Your task to perform on an android device: delete the emails in spam in the gmail app Image 0: 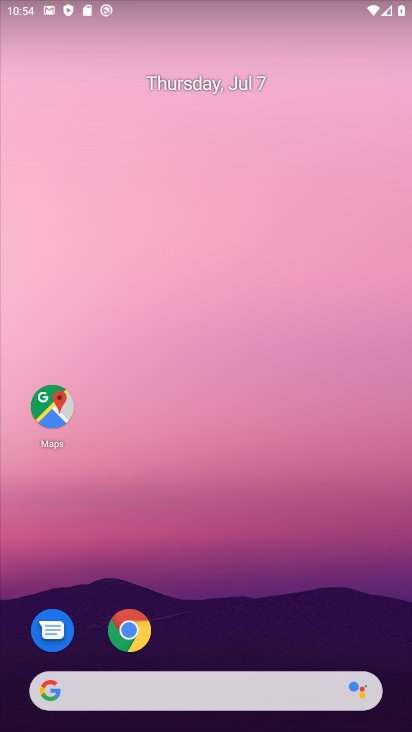
Step 0: drag from (271, 632) to (232, 71)
Your task to perform on an android device: delete the emails in spam in the gmail app Image 1: 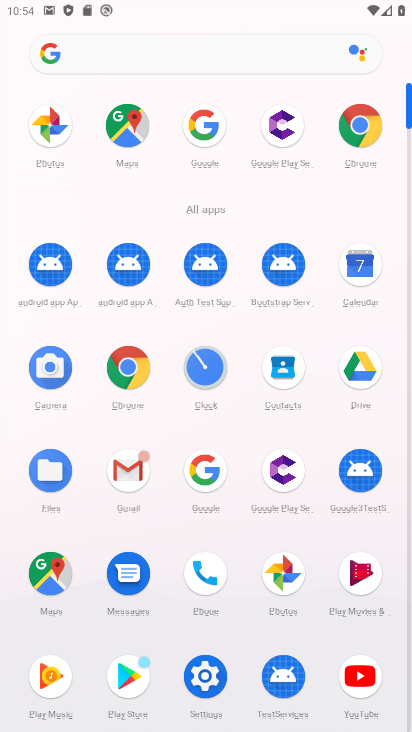
Step 1: click (122, 466)
Your task to perform on an android device: delete the emails in spam in the gmail app Image 2: 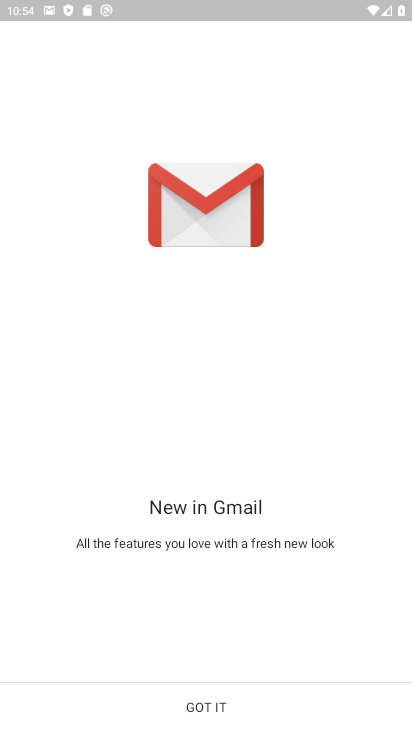
Step 2: click (279, 698)
Your task to perform on an android device: delete the emails in spam in the gmail app Image 3: 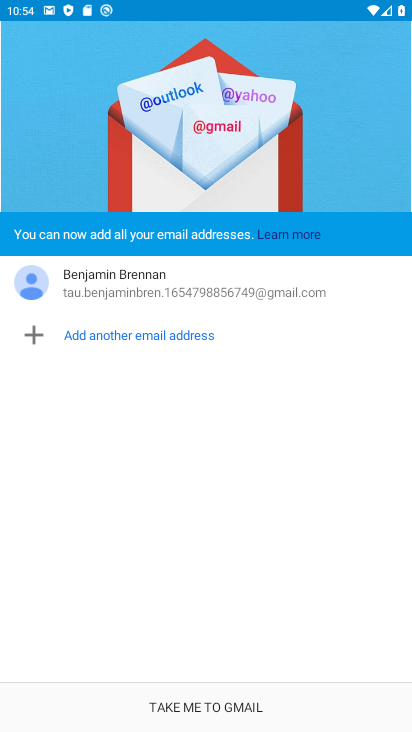
Step 3: click (279, 698)
Your task to perform on an android device: delete the emails in spam in the gmail app Image 4: 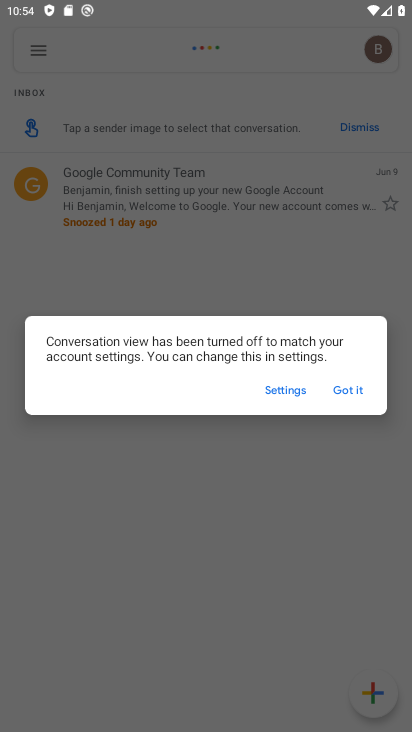
Step 4: click (356, 395)
Your task to perform on an android device: delete the emails in spam in the gmail app Image 5: 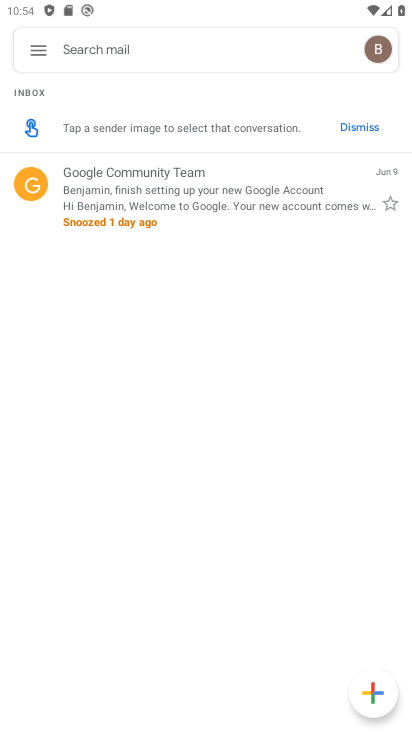
Step 5: click (42, 52)
Your task to perform on an android device: delete the emails in spam in the gmail app Image 6: 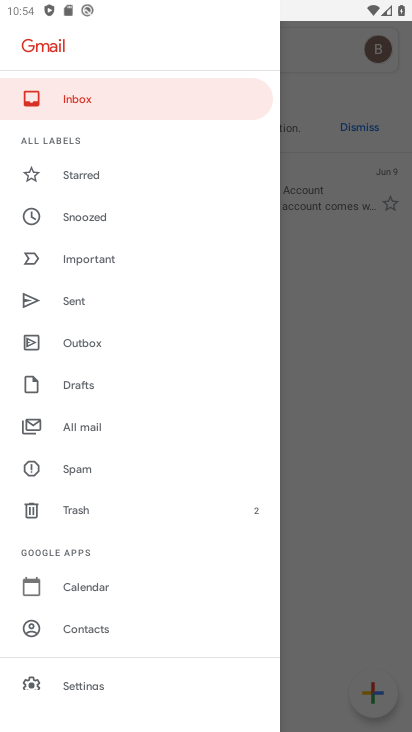
Step 6: click (102, 469)
Your task to perform on an android device: delete the emails in spam in the gmail app Image 7: 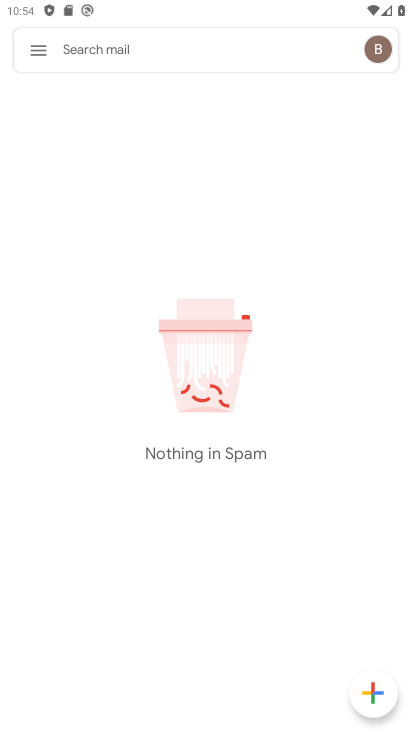
Step 7: task complete